Your task to perform on an android device: Open ESPN.com Image 0: 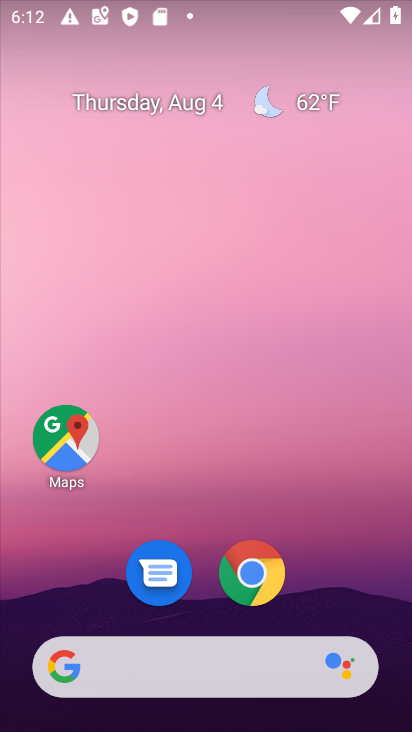
Step 0: press home button
Your task to perform on an android device: Open ESPN.com Image 1: 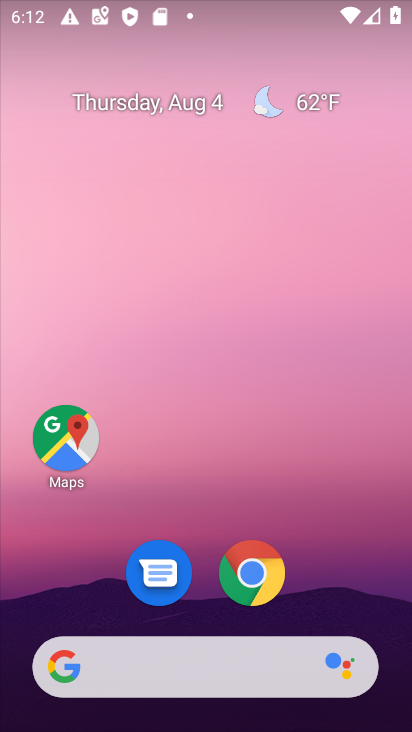
Step 1: click (56, 638)
Your task to perform on an android device: Open ESPN.com Image 2: 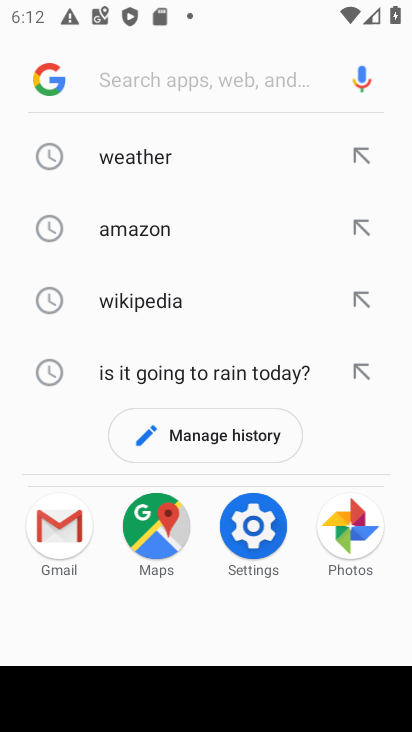
Step 2: type "ESPN.com"
Your task to perform on an android device: Open ESPN.com Image 3: 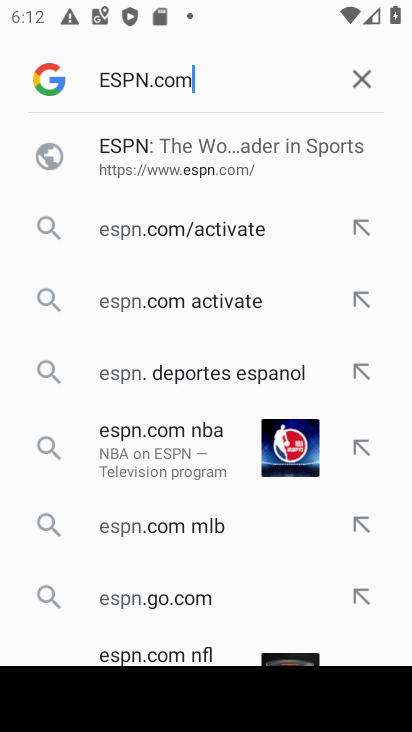
Step 3: press enter
Your task to perform on an android device: Open ESPN.com Image 4: 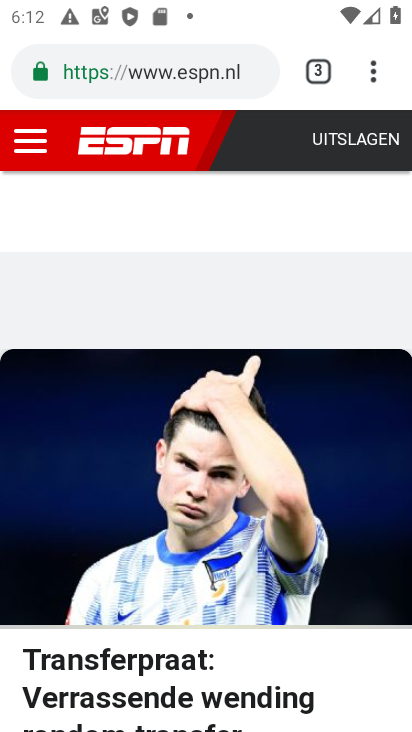
Step 4: task complete